Your task to perform on an android device: change keyboard looks Image 0: 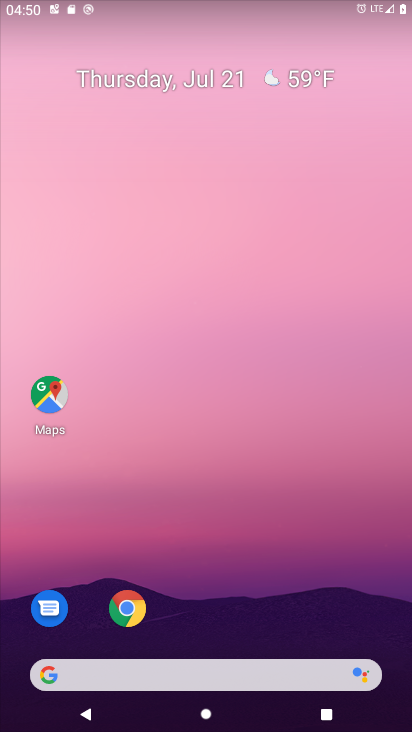
Step 0: drag from (261, 543) to (267, 88)
Your task to perform on an android device: change keyboard looks Image 1: 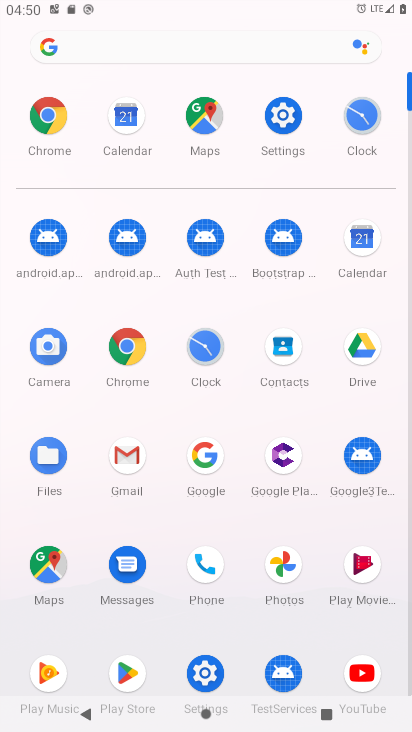
Step 1: click (283, 110)
Your task to perform on an android device: change keyboard looks Image 2: 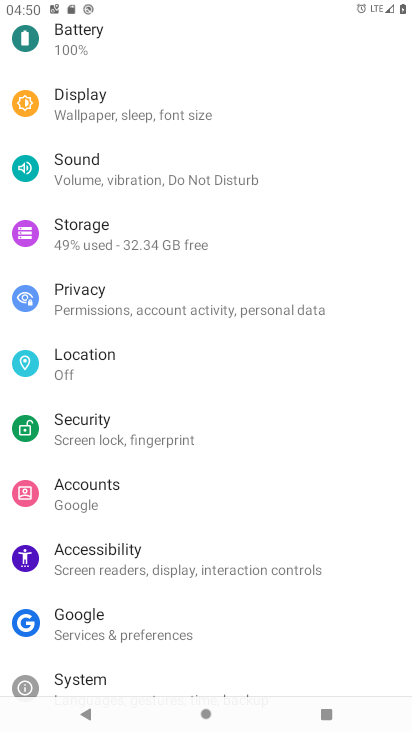
Step 2: drag from (132, 646) to (134, 316)
Your task to perform on an android device: change keyboard looks Image 3: 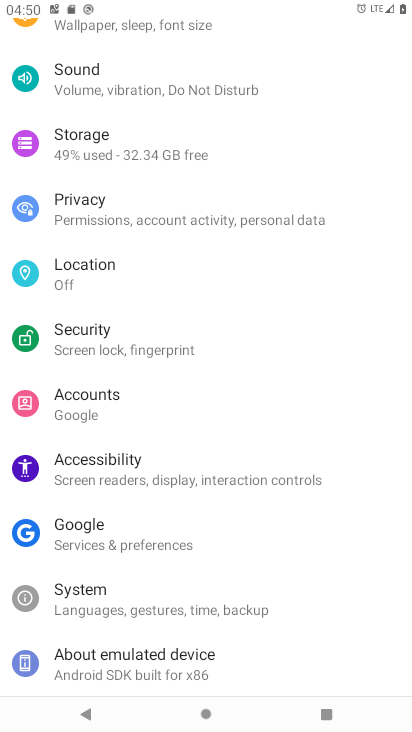
Step 3: click (116, 608)
Your task to perform on an android device: change keyboard looks Image 4: 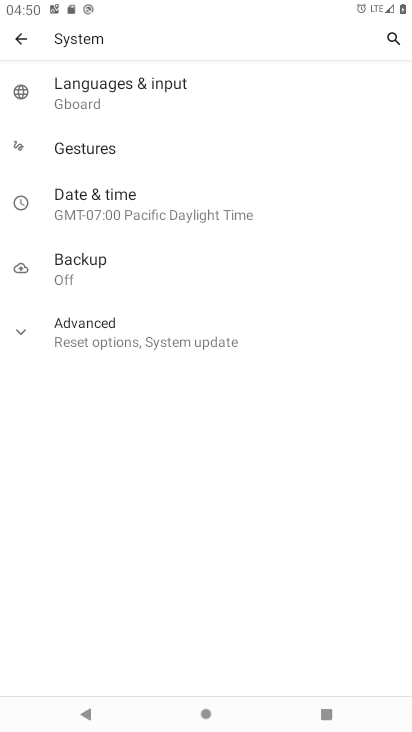
Step 4: click (138, 93)
Your task to perform on an android device: change keyboard looks Image 5: 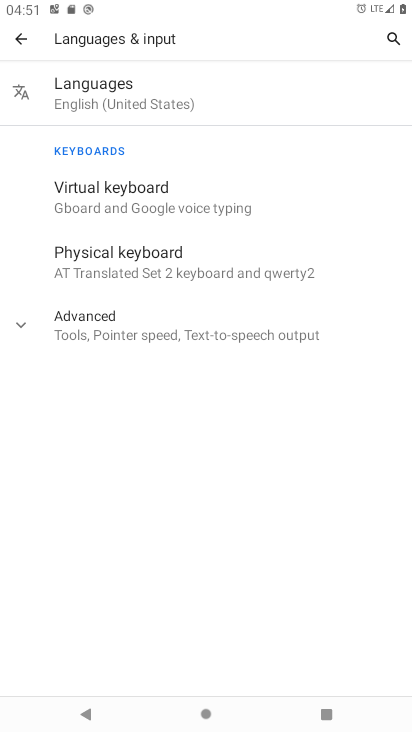
Step 5: click (113, 196)
Your task to perform on an android device: change keyboard looks Image 6: 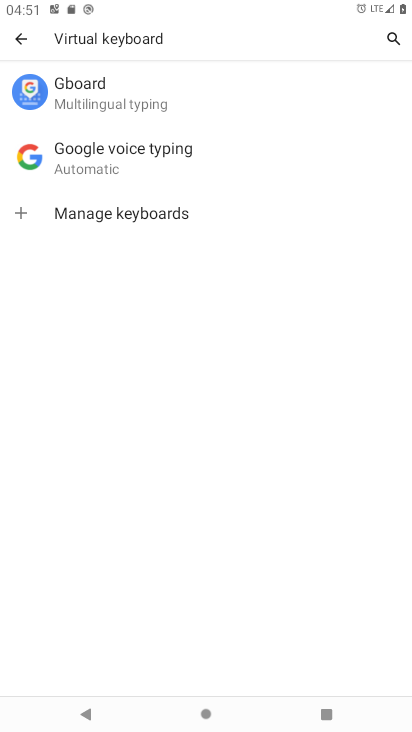
Step 6: click (105, 87)
Your task to perform on an android device: change keyboard looks Image 7: 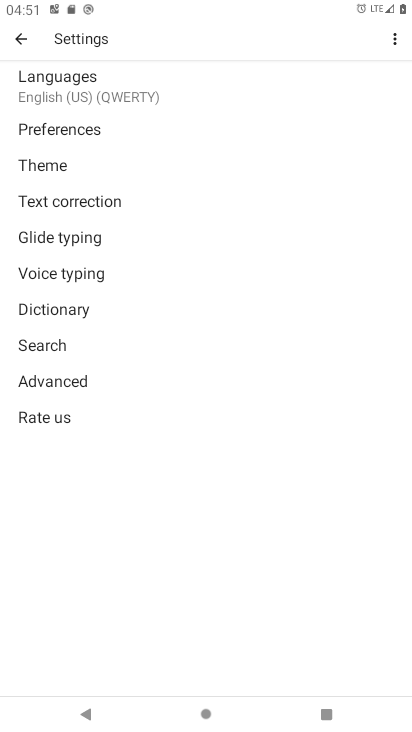
Step 7: click (75, 162)
Your task to perform on an android device: change keyboard looks Image 8: 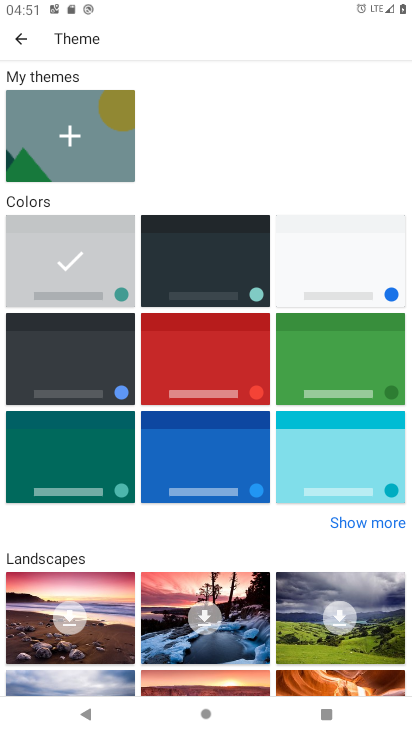
Step 8: click (100, 449)
Your task to perform on an android device: change keyboard looks Image 9: 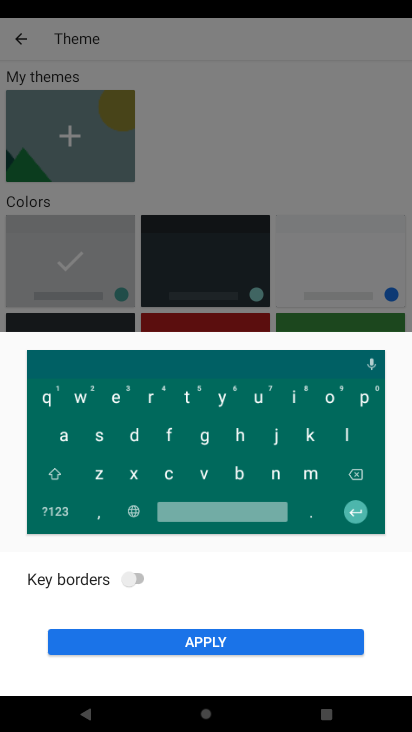
Step 9: click (262, 635)
Your task to perform on an android device: change keyboard looks Image 10: 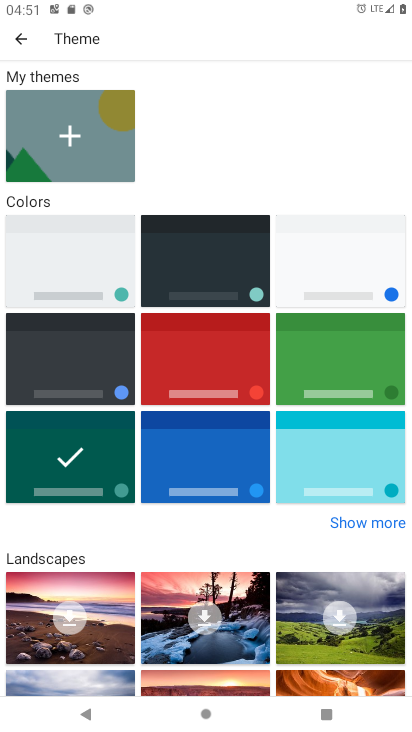
Step 10: task complete